Your task to perform on an android device: Show the shopping cart on target.com. Add macbook pro 13 inch to the cart on target.com Image 0: 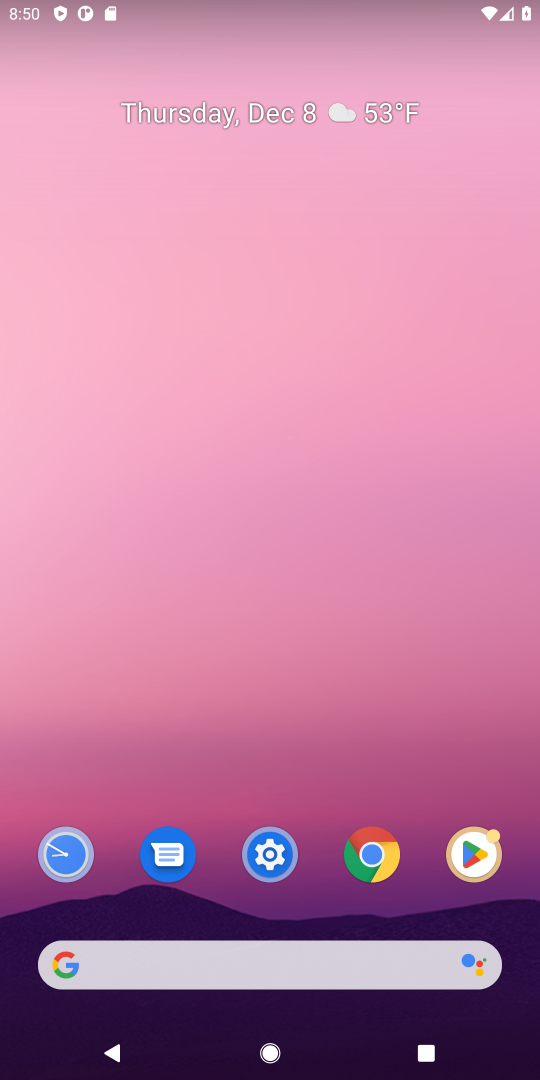
Step 0: press home button
Your task to perform on an android device: Show the shopping cart on target.com. Add macbook pro 13 inch to the cart on target.com Image 1: 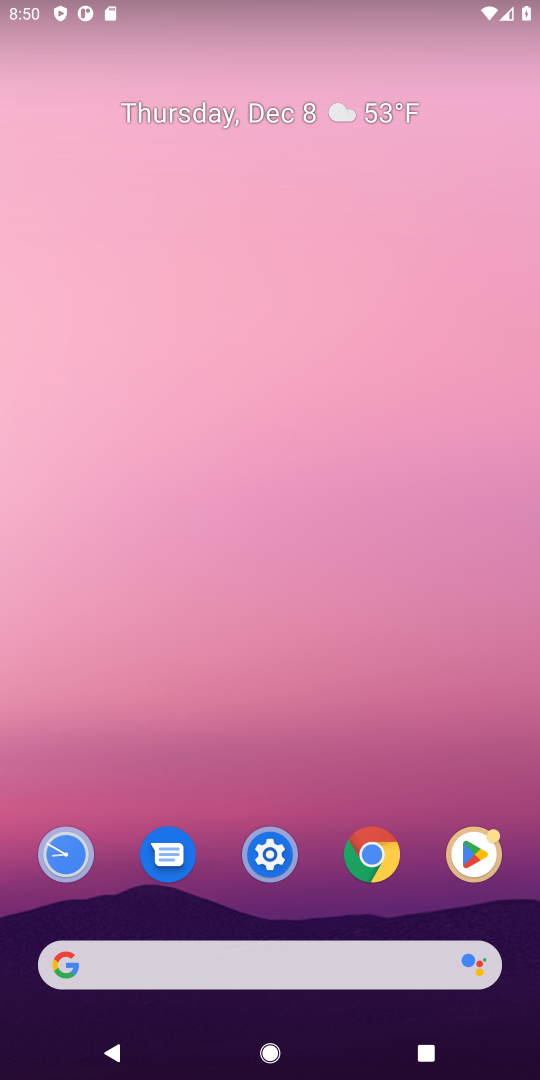
Step 1: click (99, 967)
Your task to perform on an android device: Show the shopping cart on target.com. Add macbook pro 13 inch to the cart on target.com Image 2: 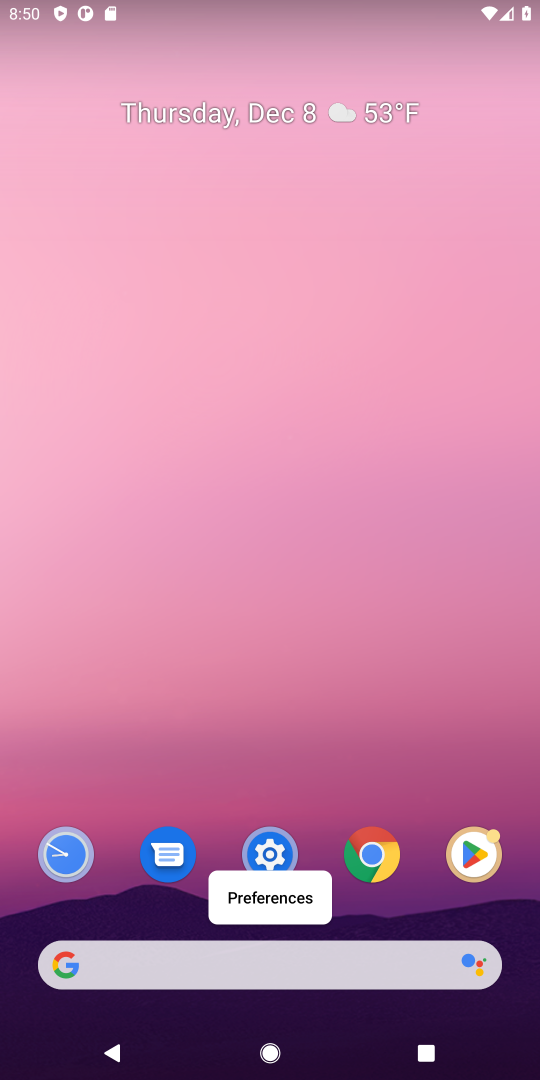
Step 2: click (105, 965)
Your task to perform on an android device: Show the shopping cart on target.com. Add macbook pro 13 inch to the cart on target.com Image 3: 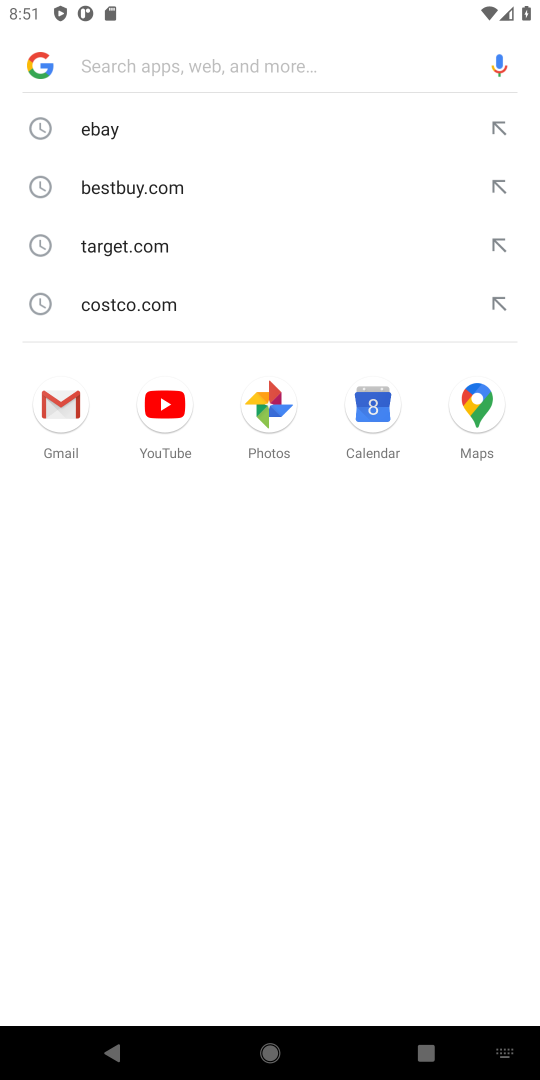
Step 3: type "target.com"
Your task to perform on an android device: Show the shopping cart on target.com. Add macbook pro 13 inch to the cart on target.com Image 4: 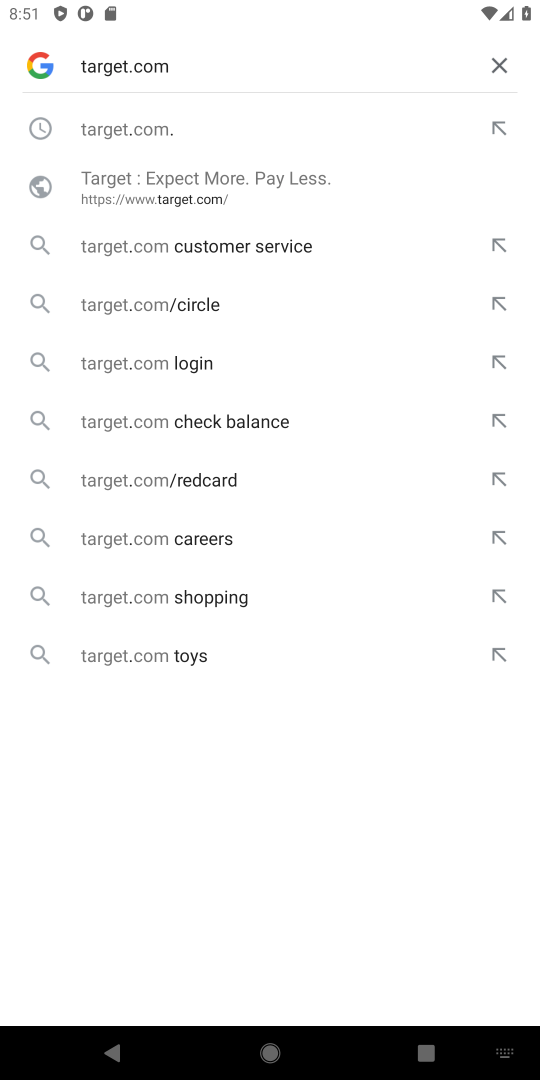
Step 4: press enter
Your task to perform on an android device: Show the shopping cart on target.com. Add macbook pro 13 inch to the cart on target.com Image 5: 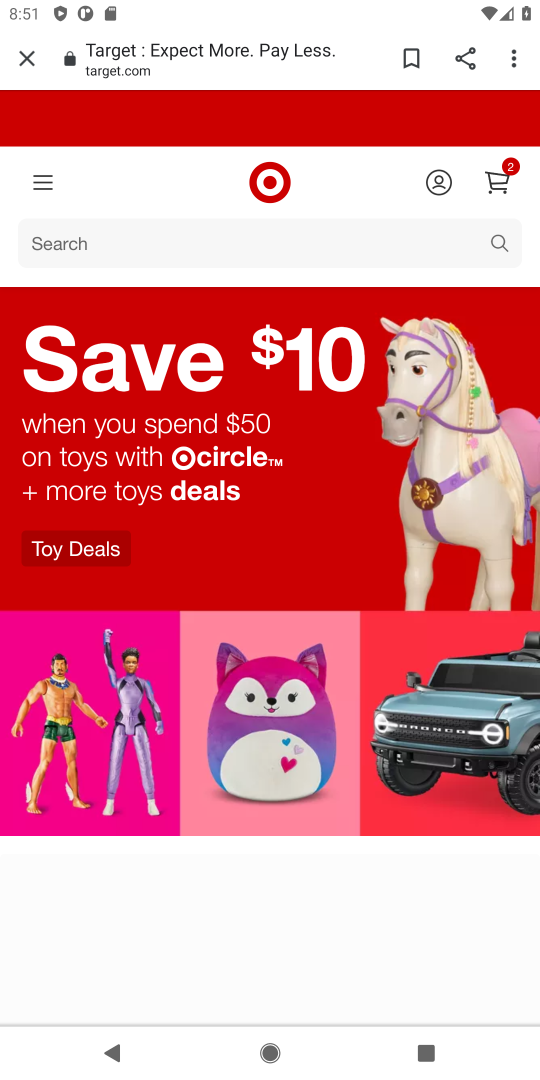
Step 5: click (500, 181)
Your task to perform on an android device: Show the shopping cart on target.com. Add macbook pro 13 inch to the cart on target.com Image 6: 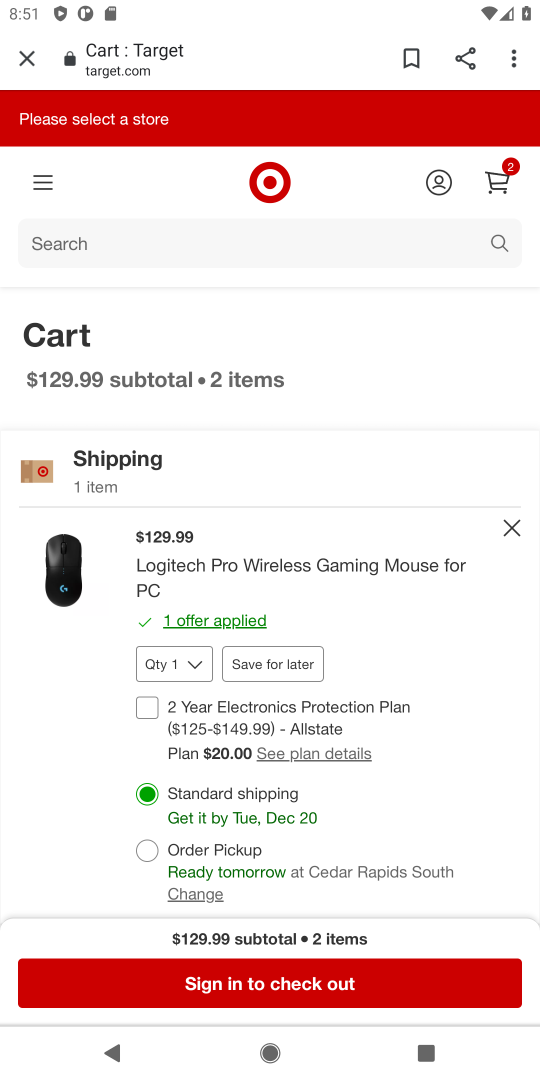
Step 6: click (93, 236)
Your task to perform on an android device: Show the shopping cart on target.com. Add macbook pro 13 inch to the cart on target.com Image 7: 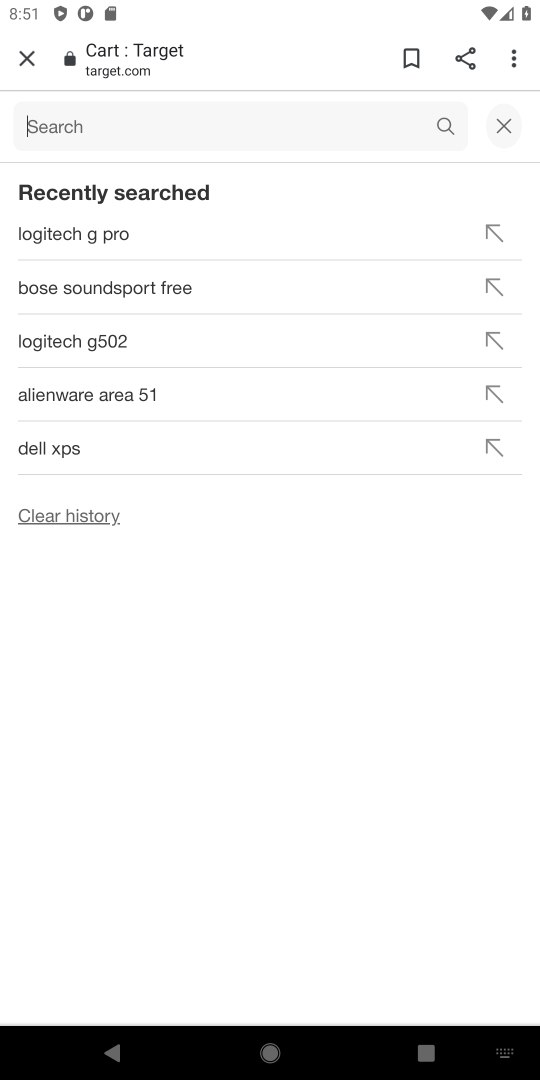
Step 7: type "macbook pro 13 inch"
Your task to perform on an android device: Show the shopping cart on target.com. Add macbook pro 13 inch to the cart on target.com Image 8: 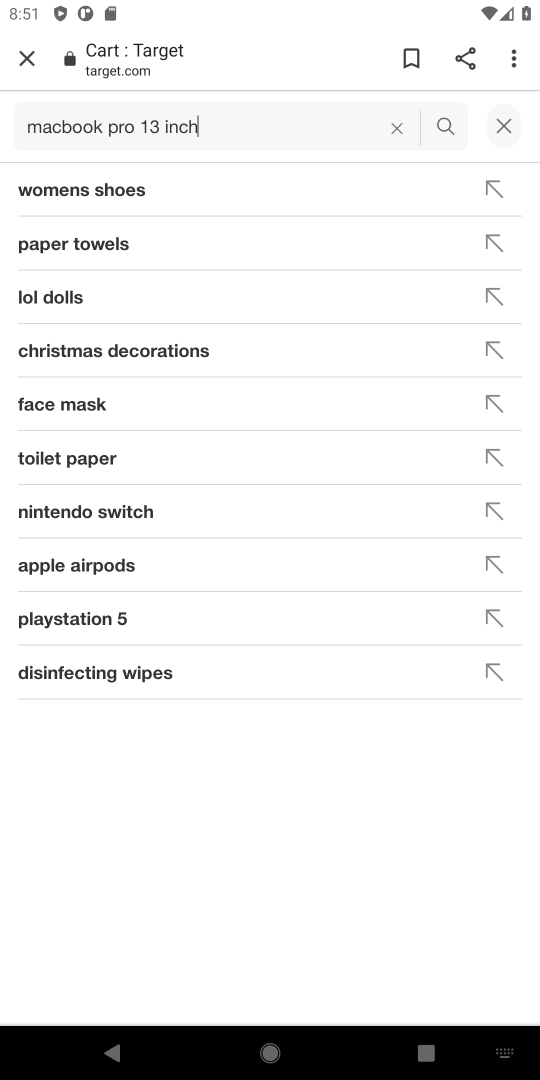
Step 8: press enter
Your task to perform on an android device: Show the shopping cart on target.com. Add macbook pro 13 inch to the cart on target.com Image 9: 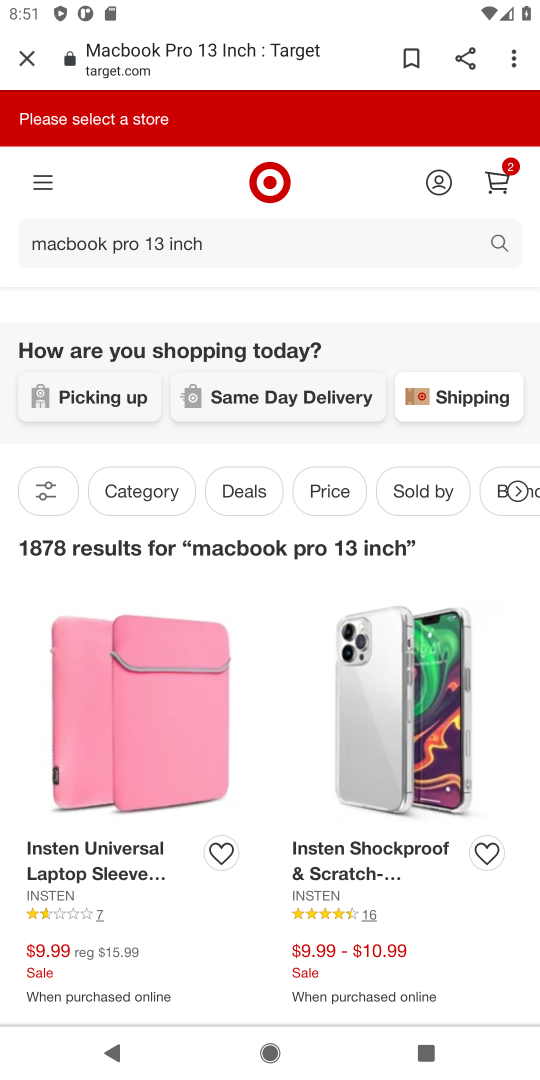
Step 9: task complete